Your task to perform on an android device: Do I have any events today? Image 0: 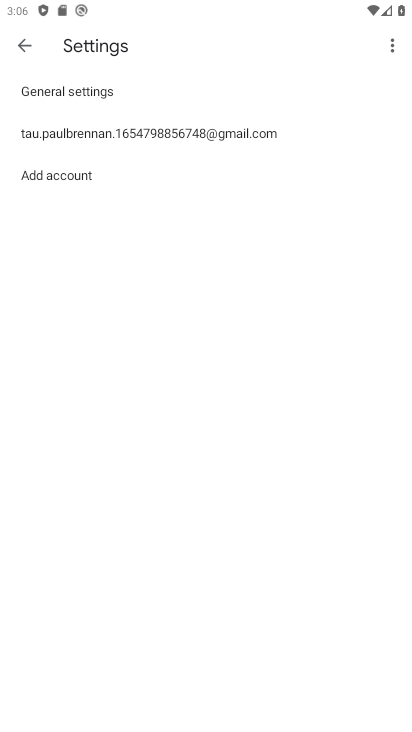
Step 0: press home button
Your task to perform on an android device: Do I have any events today? Image 1: 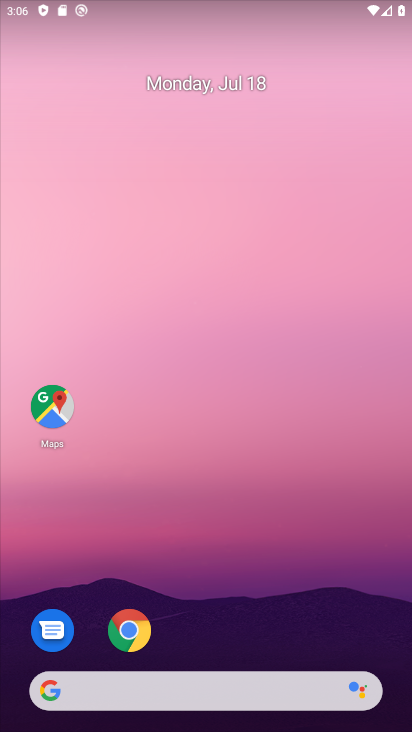
Step 1: drag from (189, 638) to (217, 106)
Your task to perform on an android device: Do I have any events today? Image 2: 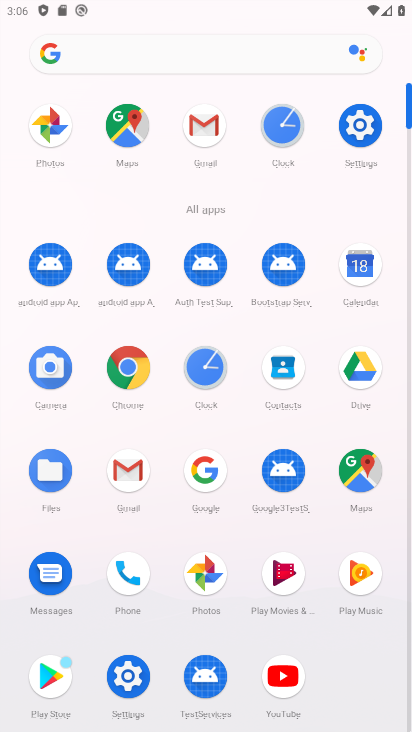
Step 2: click (347, 270)
Your task to perform on an android device: Do I have any events today? Image 3: 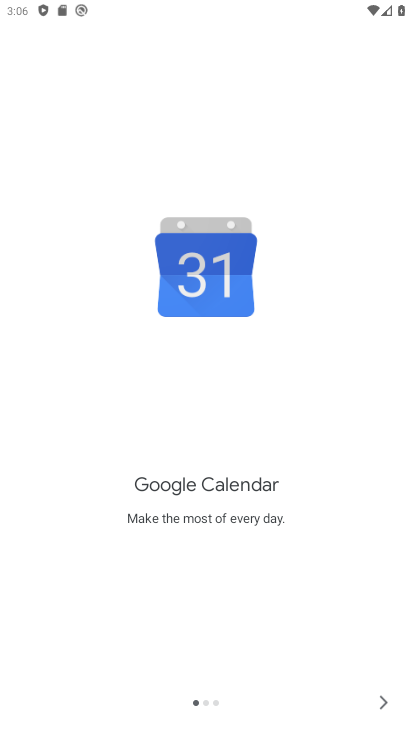
Step 3: click (378, 703)
Your task to perform on an android device: Do I have any events today? Image 4: 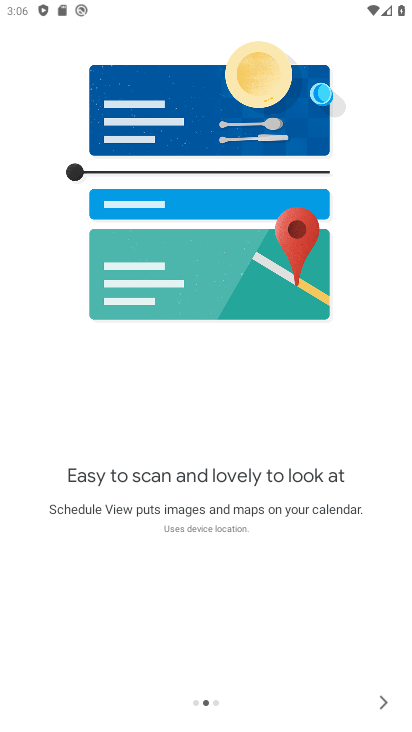
Step 4: click (388, 703)
Your task to perform on an android device: Do I have any events today? Image 5: 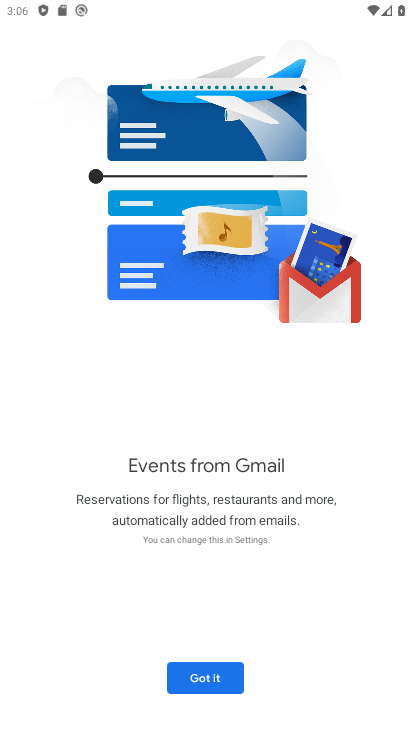
Step 5: click (390, 702)
Your task to perform on an android device: Do I have any events today? Image 6: 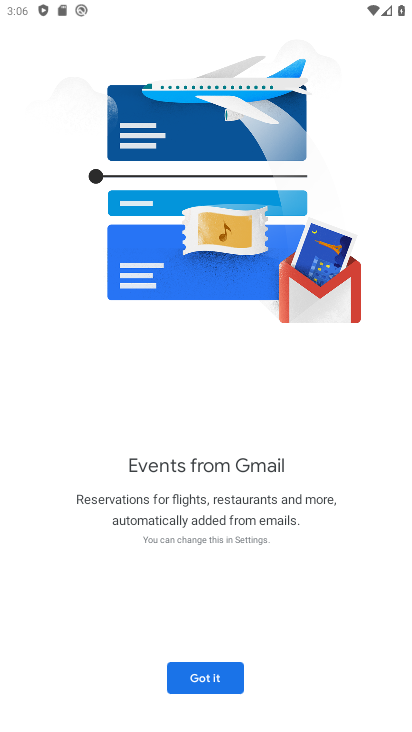
Step 6: click (219, 684)
Your task to perform on an android device: Do I have any events today? Image 7: 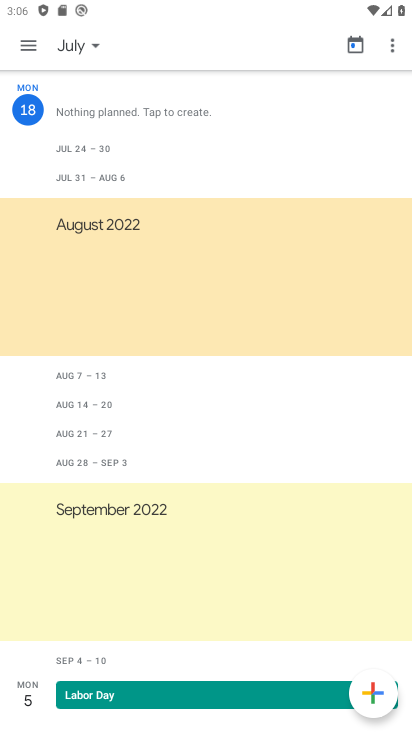
Step 7: task complete